Your task to perform on an android device: turn smart compose on in the gmail app Image 0: 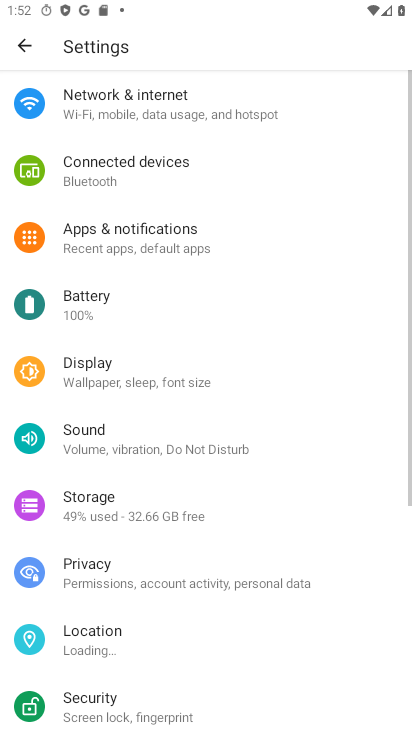
Step 0: press home button
Your task to perform on an android device: turn smart compose on in the gmail app Image 1: 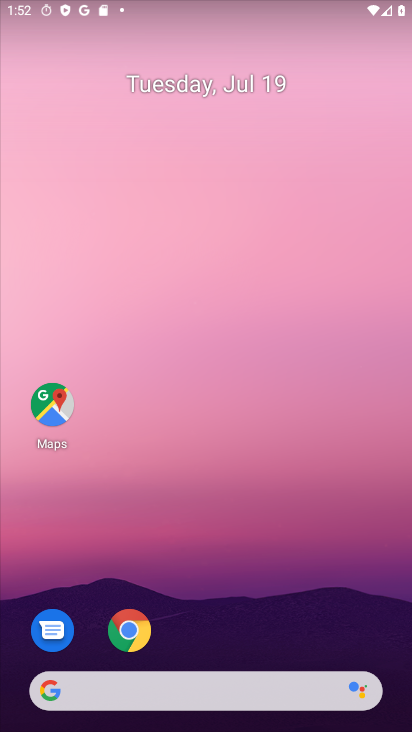
Step 1: drag from (241, 583) to (275, 198)
Your task to perform on an android device: turn smart compose on in the gmail app Image 2: 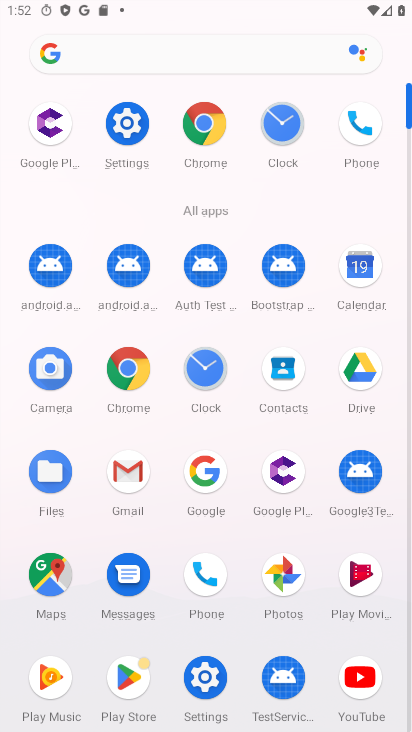
Step 2: click (117, 480)
Your task to perform on an android device: turn smart compose on in the gmail app Image 3: 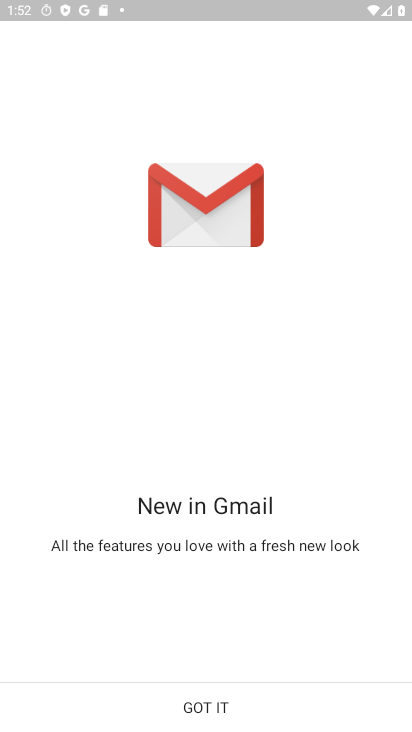
Step 3: click (234, 698)
Your task to perform on an android device: turn smart compose on in the gmail app Image 4: 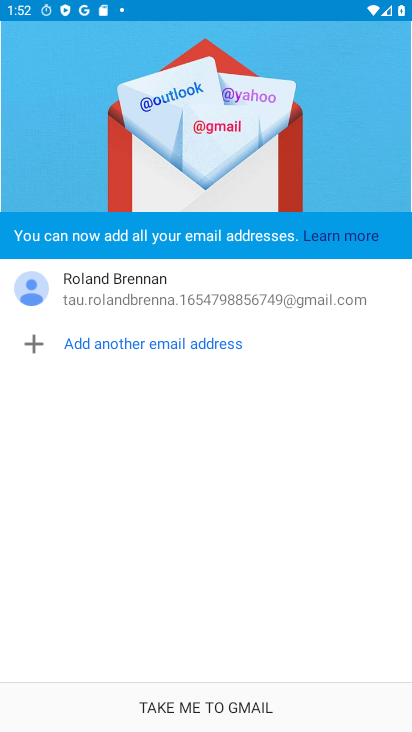
Step 4: click (97, 696)
Your task to perform on an android device: turn smart compose on in the gmail app Image 5: 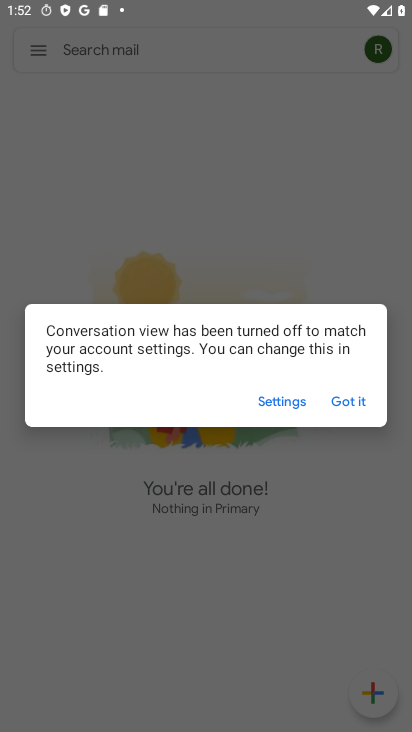
Step 5: click (353, 400)
Your task to perform on an android device: turn smart compose on in the gmail app Image 6: 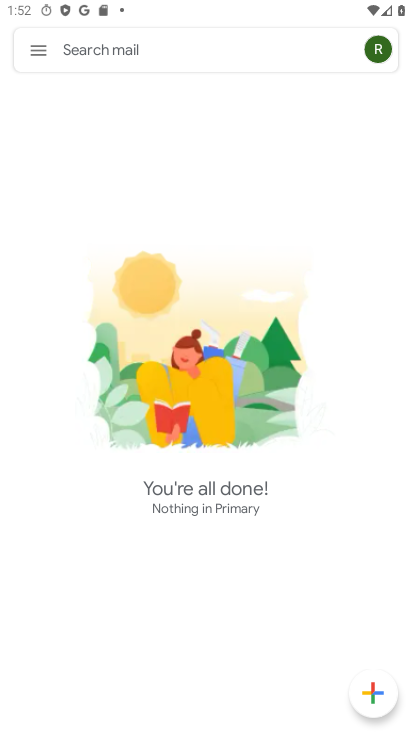
Step 6: click (43, 61)
Your task to perform on an android device: turn smart compose on in the gmail app Image 7: 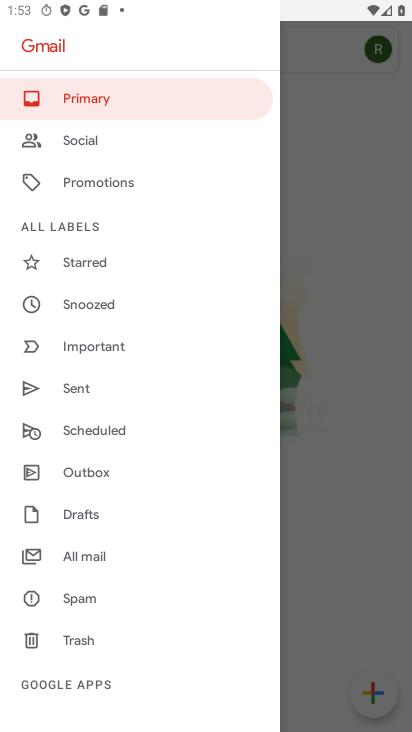
Step 7: drag from (146, 672) to (101, 339)
Your task to perform on an android device: turn smart compose on in the gmail app Image 8: 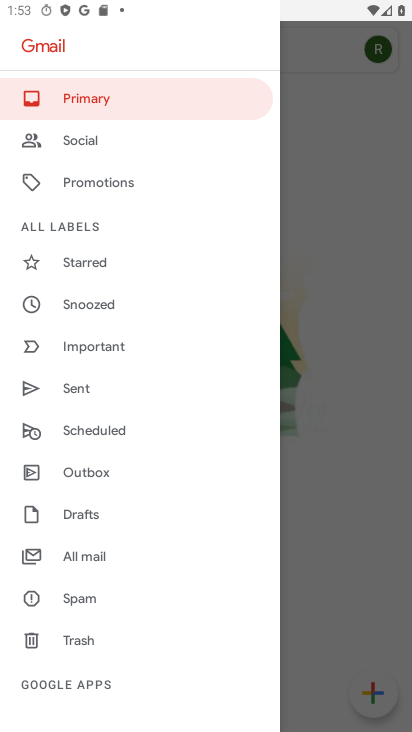
Step 8: drag from (109, 688) to (143, 379)
Your task to perform on an android device: turn smart compose on in the gmail app Image 9: 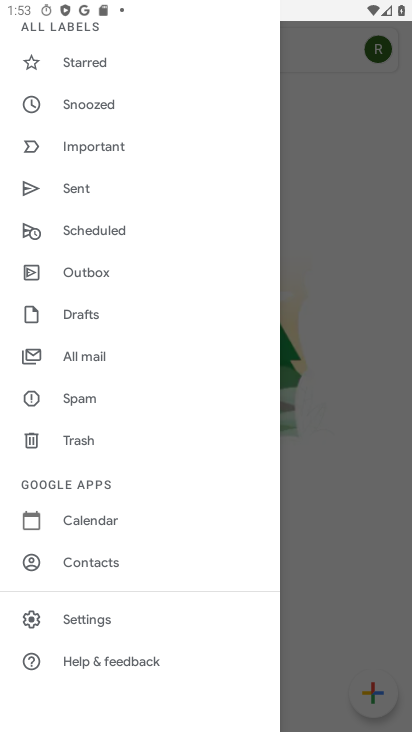
Step 9: click (100, 617)
Your task to perform on an android device: turn smart compose on in the gmail app Image 10: 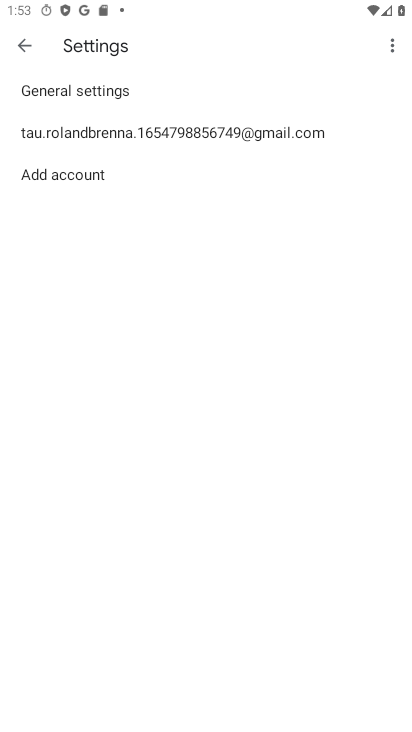
Step 10: click (305, 133)
Your task to perform on an android device: turn smart compose on in the gmail app Image 11: 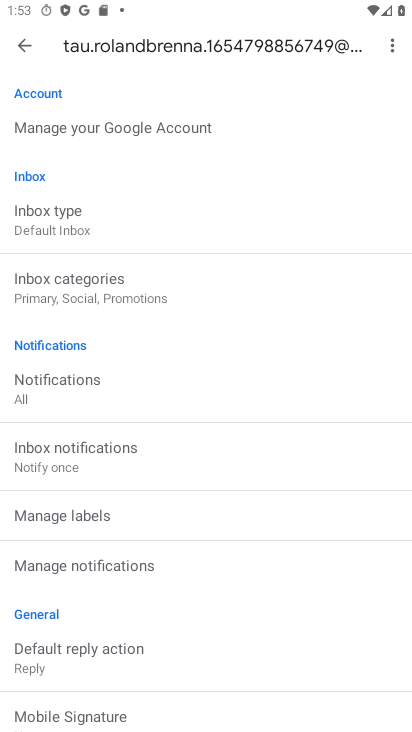
Step 11: task complete